Your task to perform on an android device: Show me the alarms in the clock app Image 0: 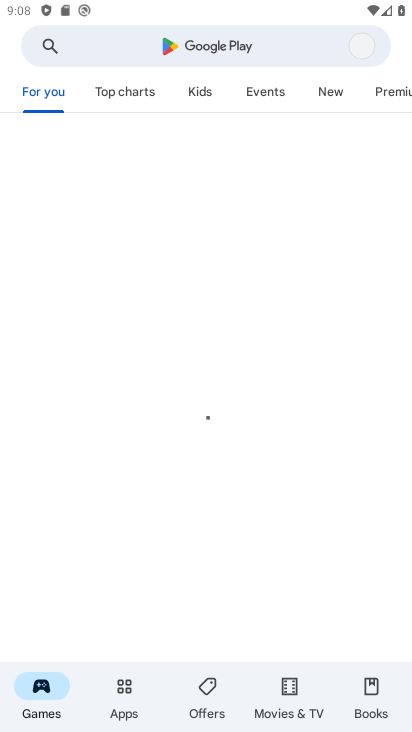
Step 0: press home button
Your task to perform on an android device: Show me the alarms in the clock app Image 1: 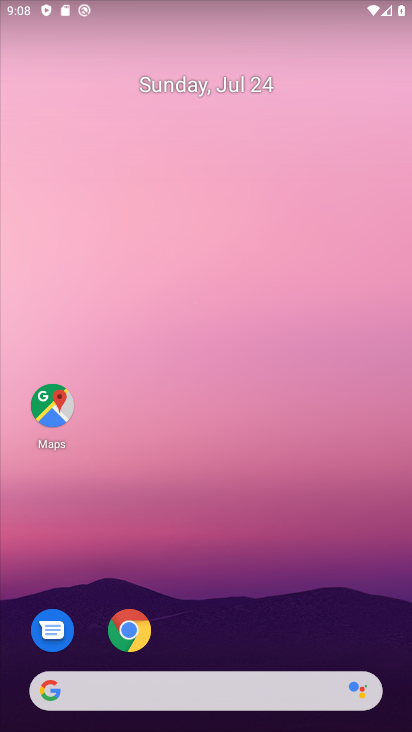
Step 1: drag from (217, 639) to (223, 202)
Your task to perform on an android device: Show me the alarms in the clock app Image 2: 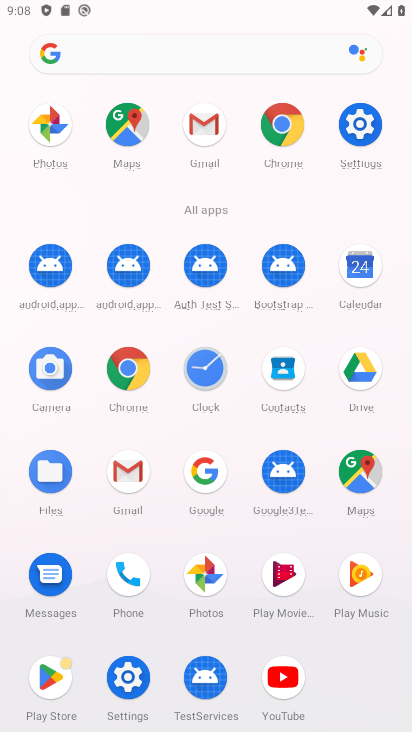
Step 2: click (211, 358)
Your task to perform on an android device: Show me the alarms in the clock app Image 3: 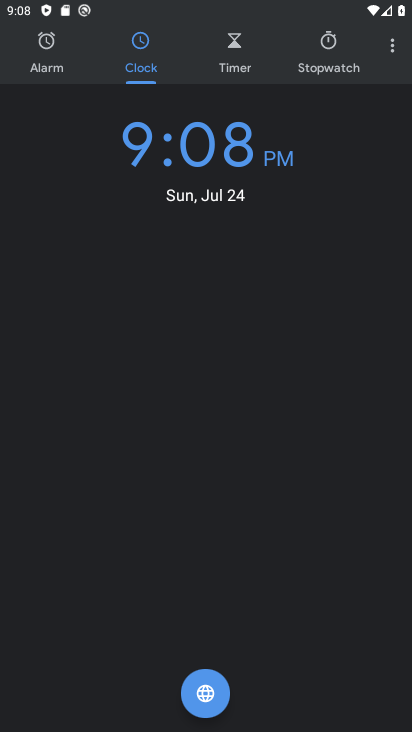
Step 3: click (396, 38)
Your task to perform on an android device: Show me the alarms in the clock app Image 4: 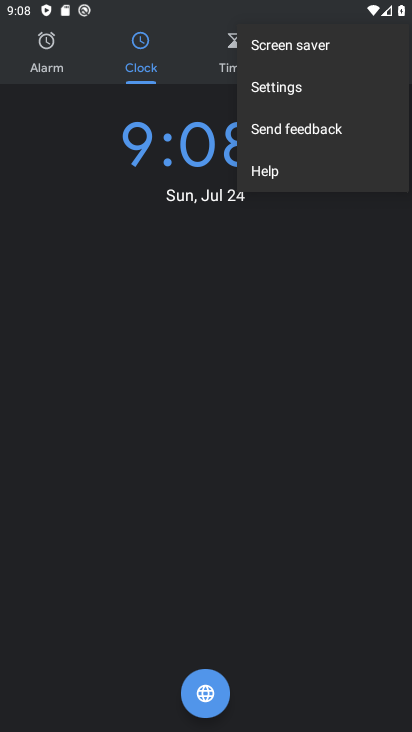
Step 4: click (285, 98)
Your task to perform on an android device: Show me the alarms in the clock app Image 5: 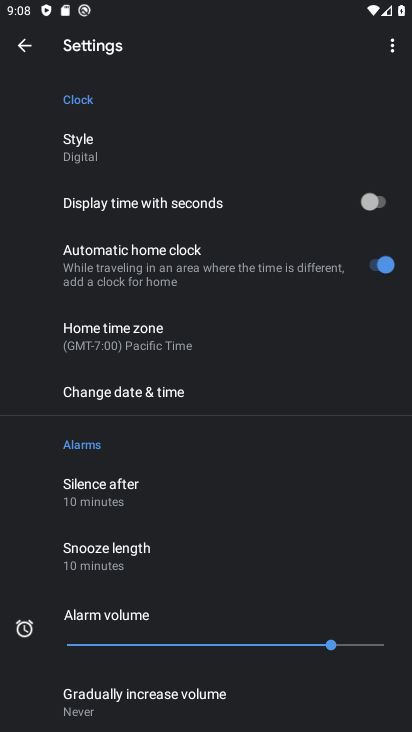
Step 5: click (38, 46)
Your task to perform on an android device: Show me the alarms in the clock app Image 6: 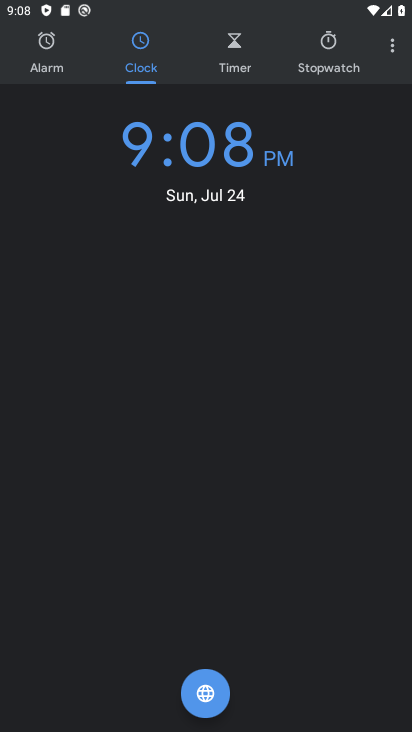
Step 6: click (46, 58)
Your task to perform on an android device: Show me the alarms in the clock app Image 7: 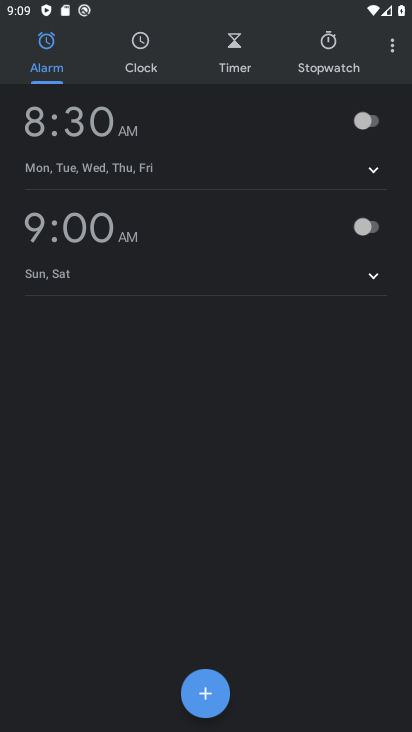
Step 7: task complete